Your task to perform on an android device: Go to settings Image 0: 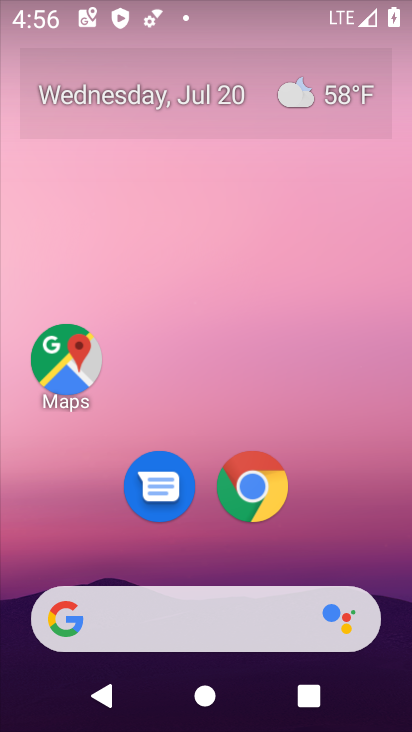
Step 0: drag from (187, 563) to (245, 9)
Your task to perform on an android device: Go to settings Image 1: 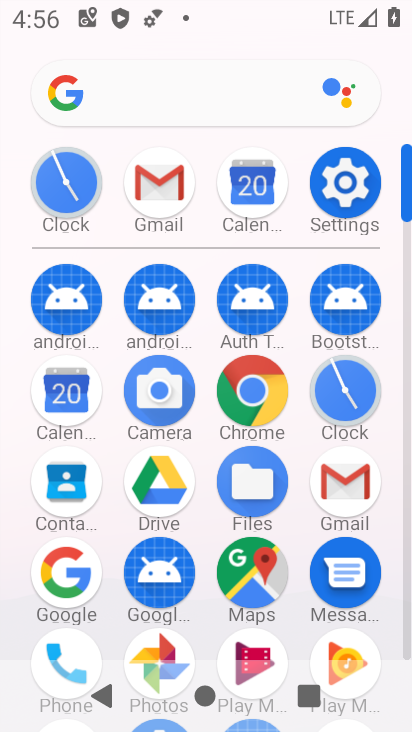
Step 1: click (340, 170)
Your task to perform on an android device: Go to settings Image 2: 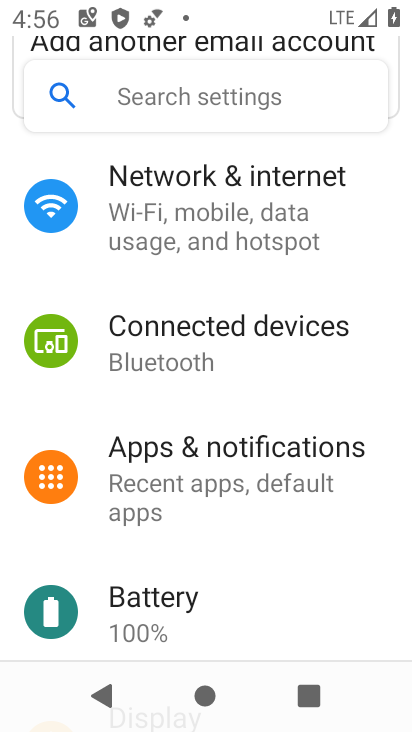
Step 2: task complete